Your task to perform on an android device: Open Maps and search for coffee Image 0: 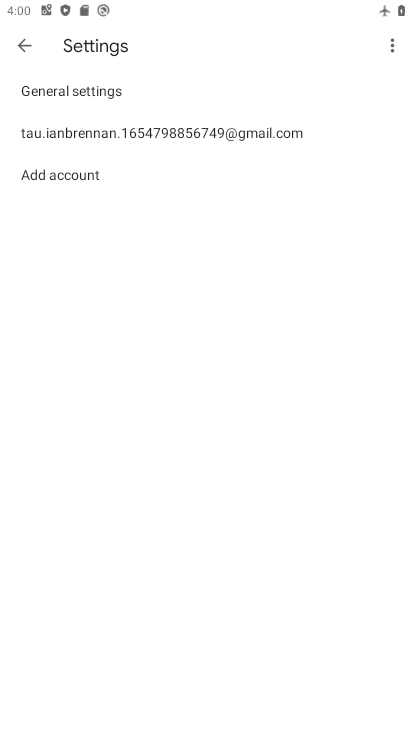
Step 0: press home button
Your task to perform on an android device: Open Maps and search for coffee Image 1: 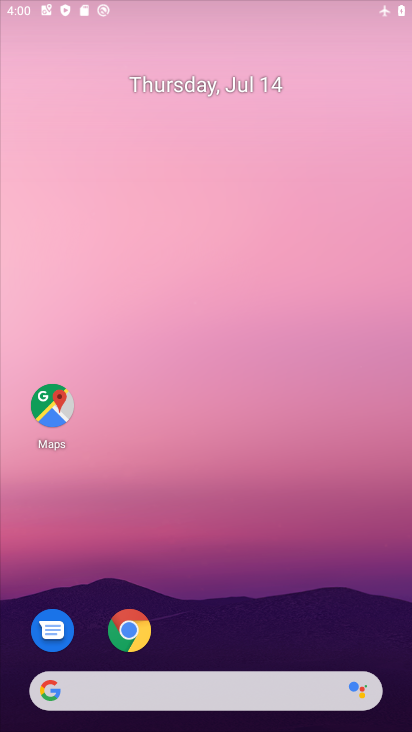
Step 1: drag from (323, 538) to (336, 7)
Your task to perform on an android device: Open Maps and search for coffee Image 2: 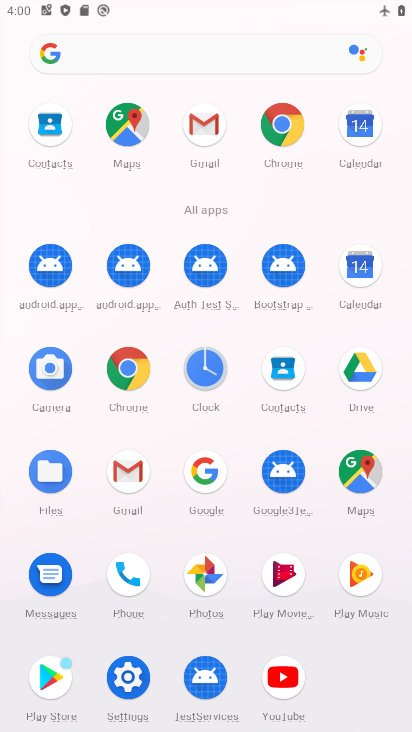
Step 2: click (354, 485)
Your task to perform on an android device: Open Maps and search for coffee Image 3: 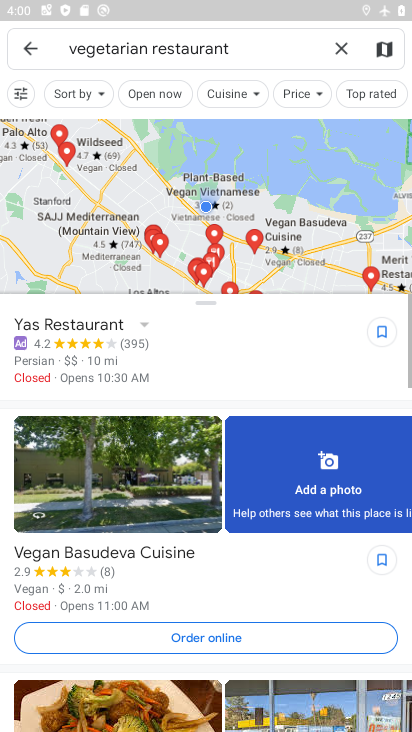
Step 3: click (334, 46)
Your task to perform on an android device: Open Maps and search for coffee Image 4: 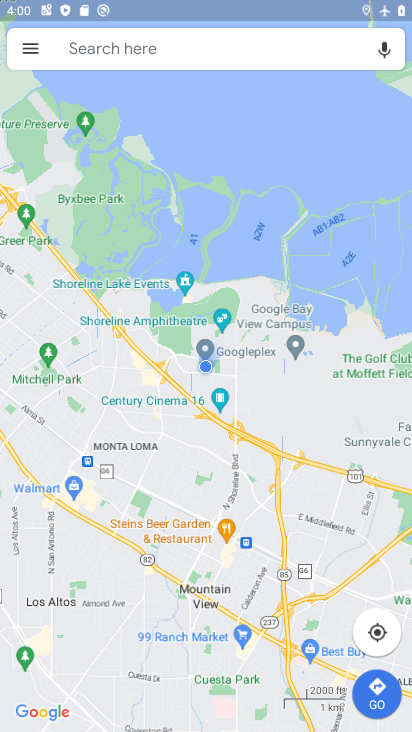
Step 4: click (234, 46)
Your task to perform on an android device: Open Maps and search for coffee Image 5: 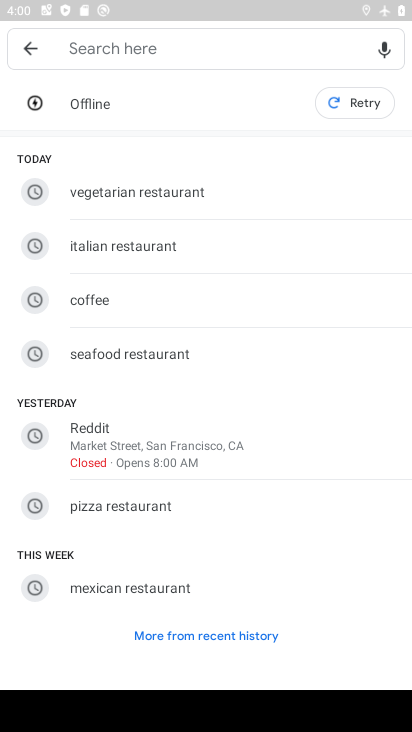
Step 5: click (239, 318)
Your task to perform on an android device: Open Maps and search for coffee Image 6: 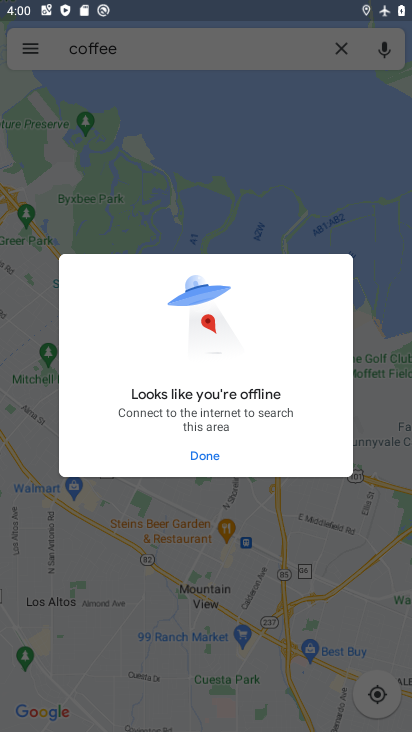
Step 6: task complete